Your task to perform on an android device: open app "Pluto TV - Live TV and Movies" Image 0: 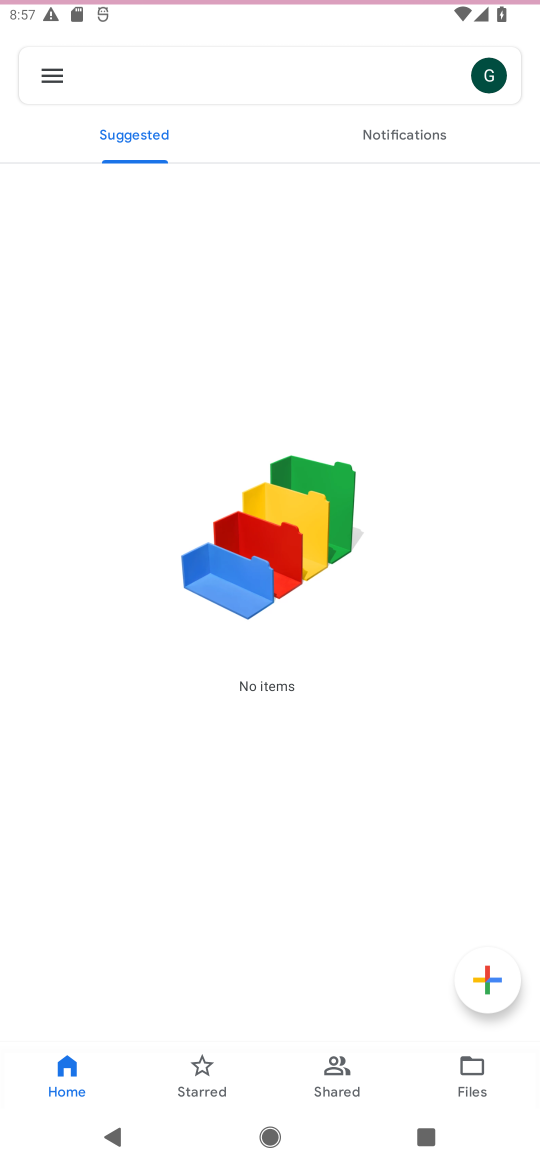
Step 0: click (329, 335)
Your task to perform on an android device: open app "Pluto TV - Live TV and Movies" Image 1: 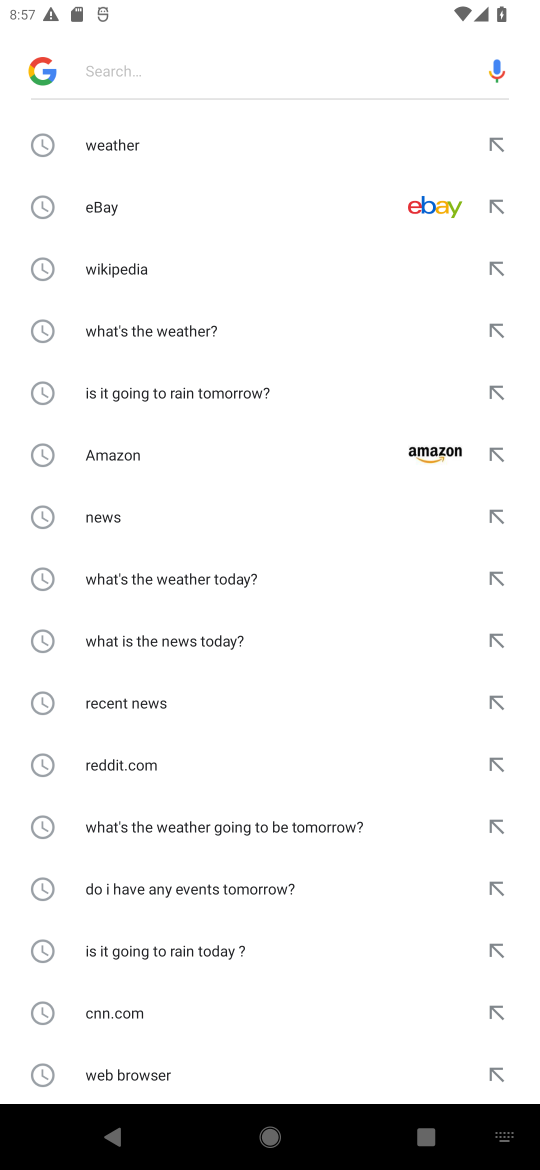
Step 1: task complete